Your task to perform on an android device: find snoozed emails in the gmail app Image 0: 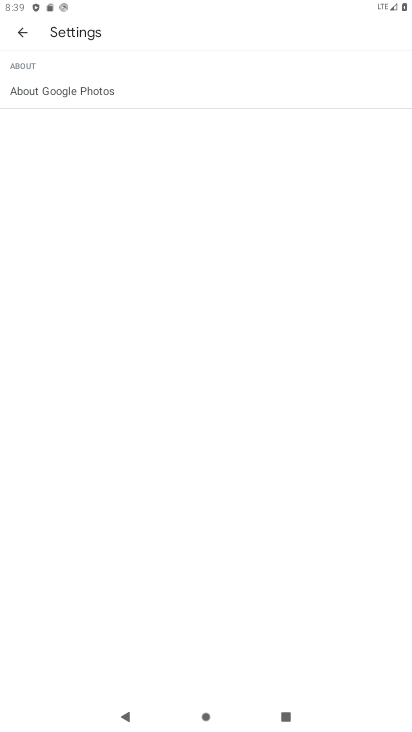
Step 0: press home button
Your task to perform on an android device: find snoozed emails in the gmail app Image 1: 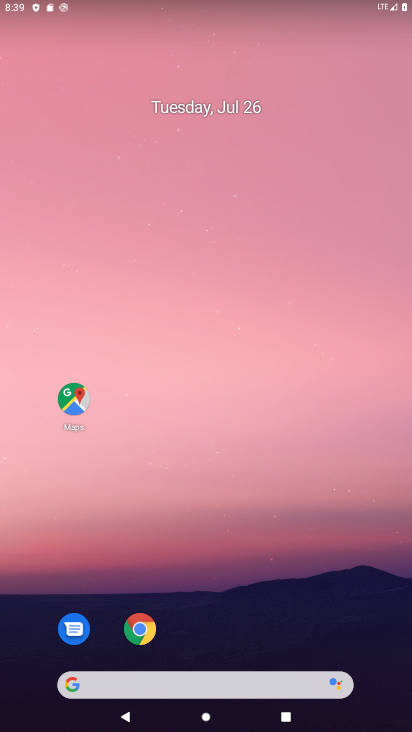
Step 1: drag from (194, 661) to (179, 36)
Your task to perform on an android device: find snoozed emails in the gmail app Image 2: 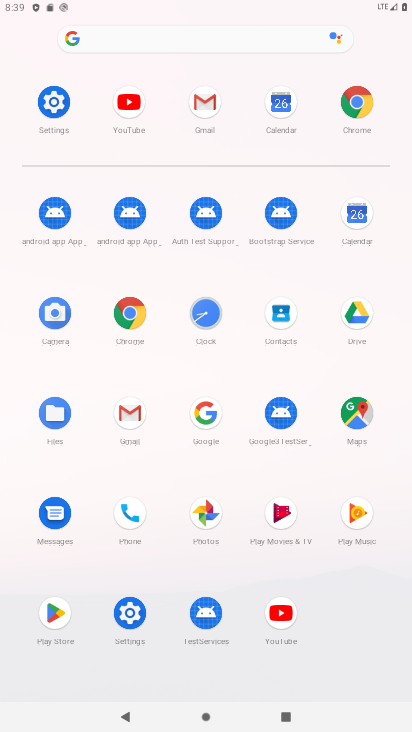
Step 2: click (126, 409)
Your task to perform on an android device: find snoozed emails in the gmail app Image 3: 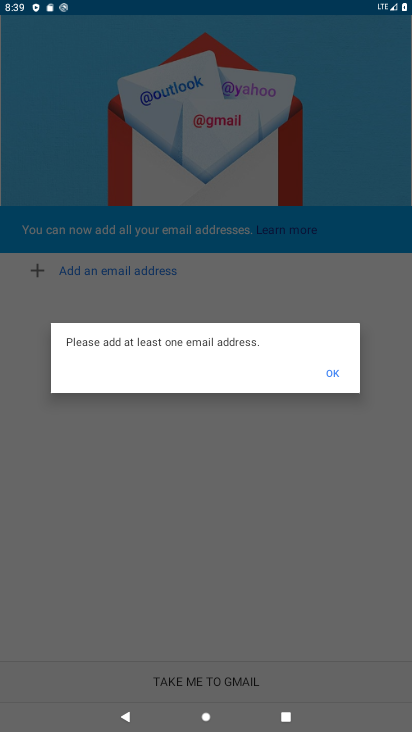
Step 3: click (335, 365)
Your task to perform on an android device: find snoozed emails in the gmail app Image 4: 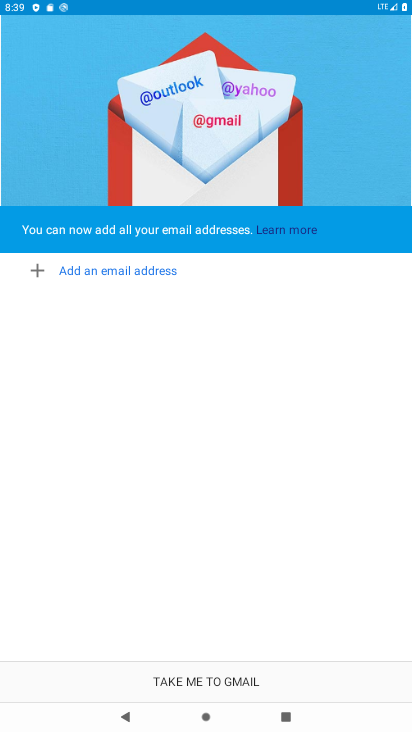
Step 4: task complete